Your task to perform on an android device: What's the weather going to be tomorrow? Image 0: 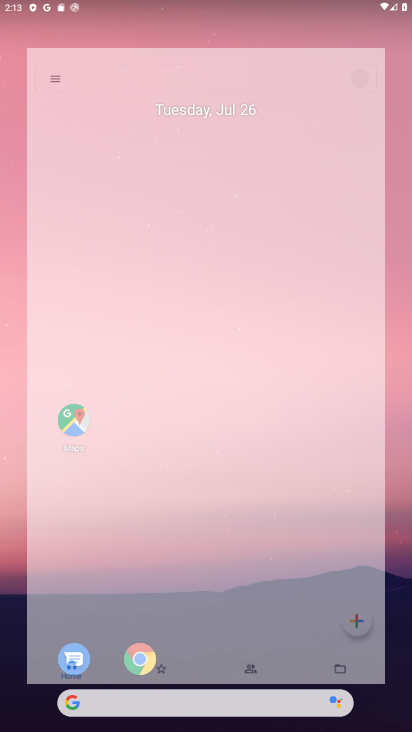
Step 0: click (139, 661)
Your task to perform on an android device: What's the weather going to be tomorrow? Image 1: 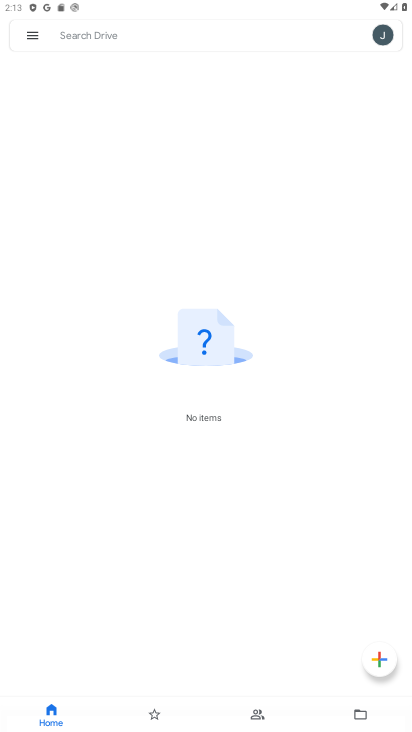
Step 1: press home button
Your task to perform on an android device: What's the weather going to be tomorrow? Image 2: 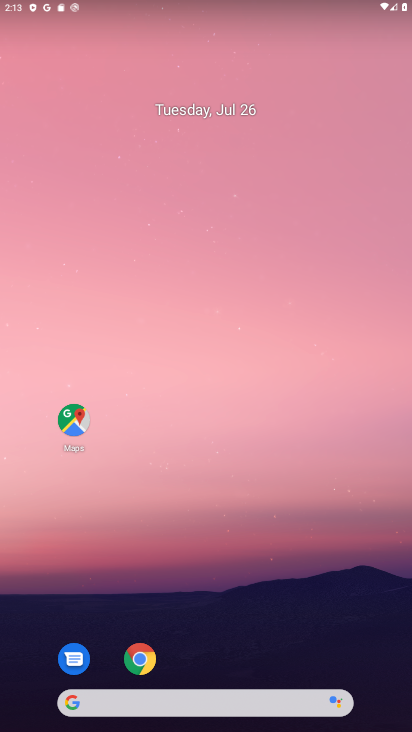
Step 2: drag from (0, 275) to (407, 239)
Your task to perform on an android device: What's the weather going to be tomorrow? Image 3: 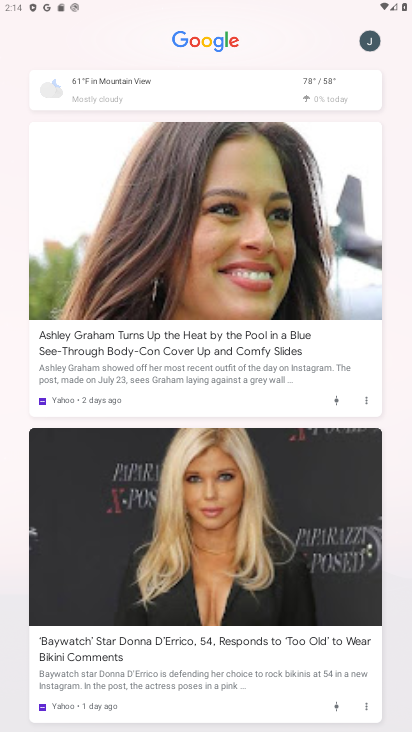
Step 3: click (316, 88)
Your task to perform on an android device: What's the weather going to be tomorrow? Image 4: 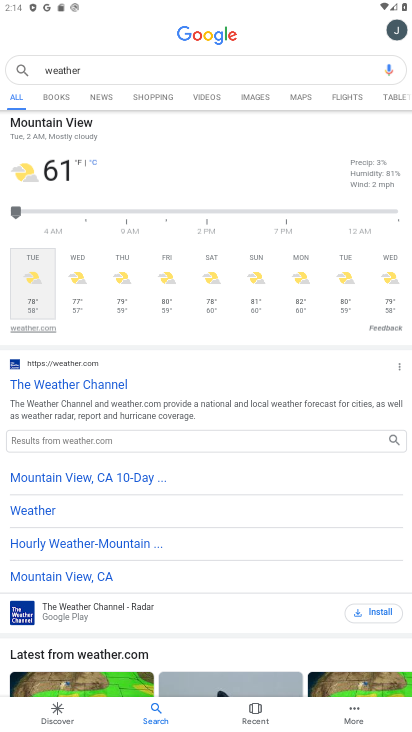
Step 4: click (374, 163)
Your task to perform on an android device: What's the weather going to be tomorrow? Image 5: 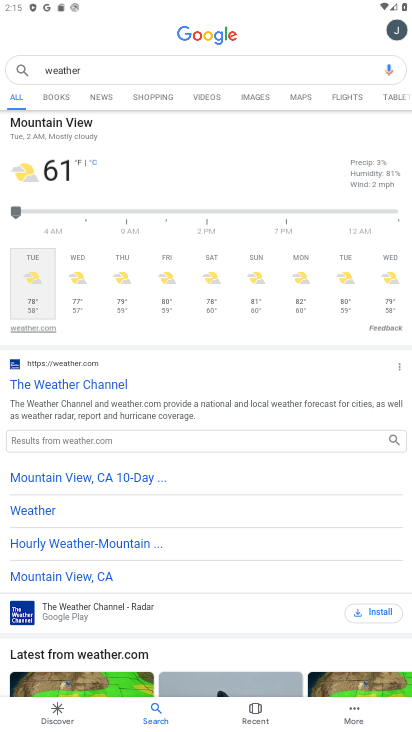
Step 5: click (80, 273)
Your task to perform on an android device: What's the weather going to be tomorrow? Image 6: 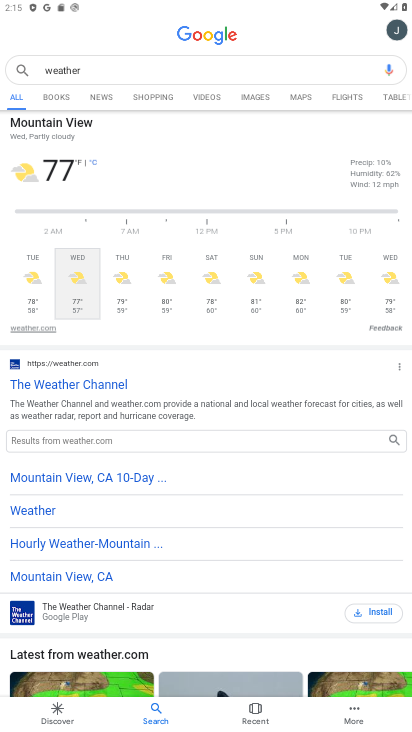
Step 6: task complete